Your task to perform on an android device: open a bookmark in the chrome app Image 0: 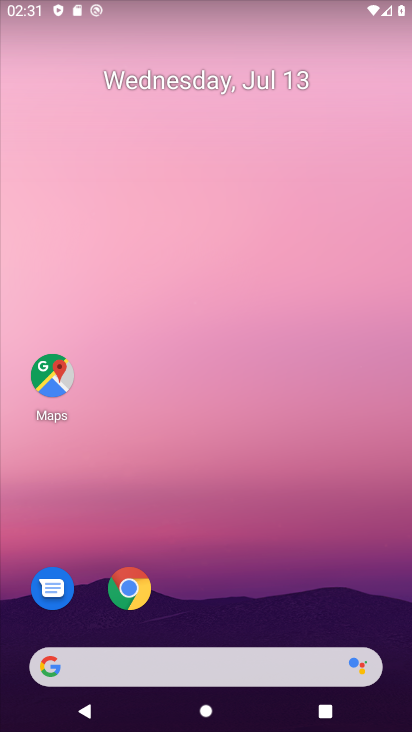
Step 0: drag from (272, 620) to (215, 45)
Your task to perform on an android device: open a bookmark in the chrome app Image 1: 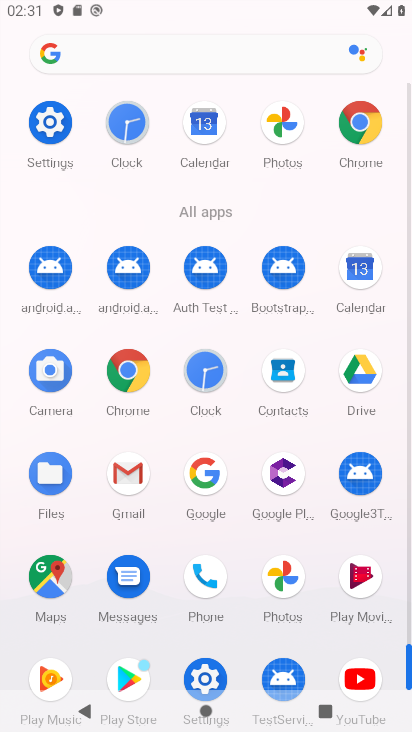
Step 1: click (363, 124)
Your task to perform on an android device: open a bookmark in the chrome app Image 2: 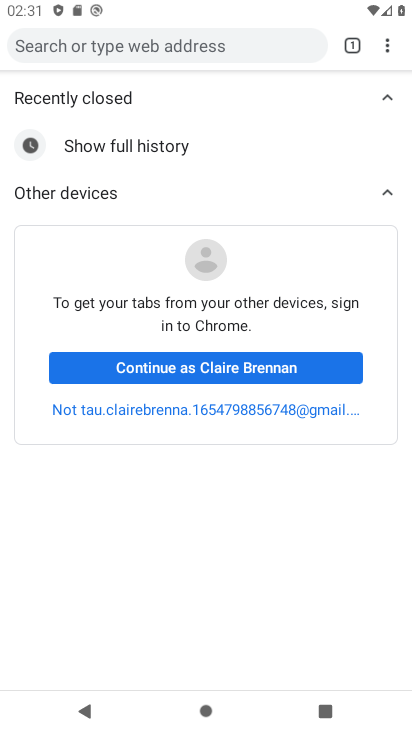
Step 2: drag from (389, 42) to (270, 172)
Your task to perform on an android device: open a bookmark in the chrome app Image 3: 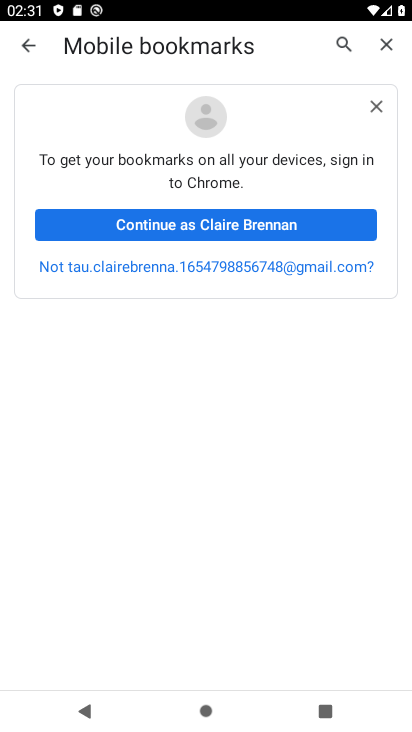
Step 3: click (220, 209)
Your task to perform on an android device: open a bookmark in the chrome app Image 4: 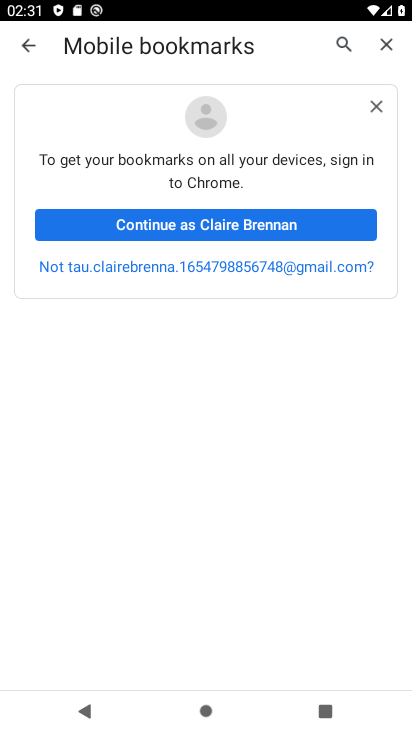
Step 4: click (215, 214)
Your task to perform on an android device: open a bookmark in the chrome app Image 5: 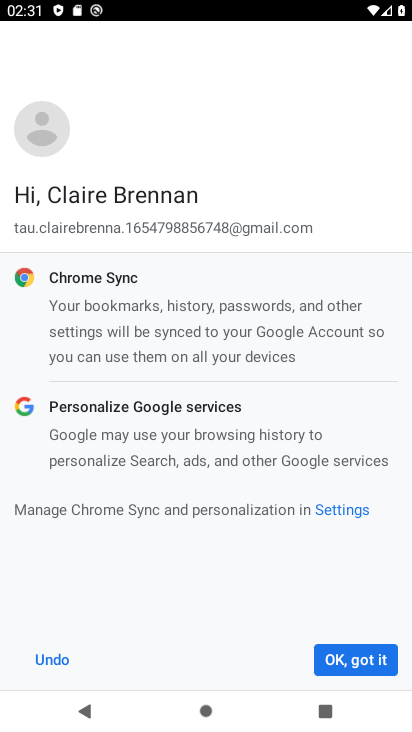
Step 5: click (374, 657)
Your task to perform on an android device: open a bookmark in the chrome app Image 6: 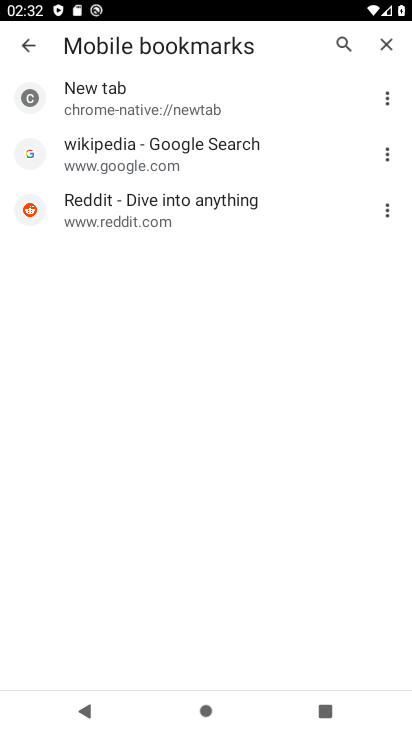
Step 6: task complete